Your task to perform on an android device: Check the news Image 0: 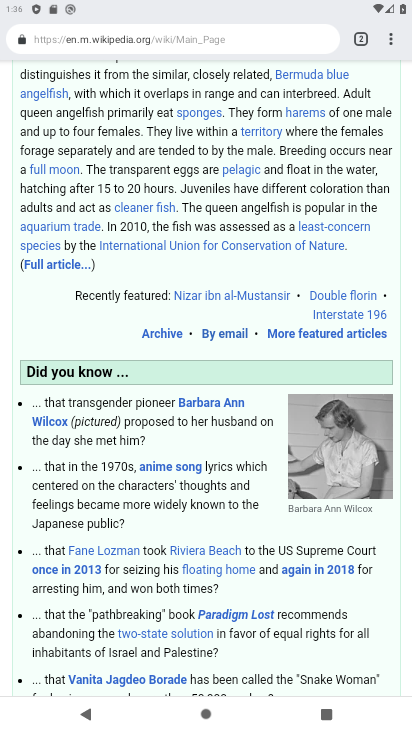
Step 0: press home button
Your task to perform on an android device: Check the news Image 1: 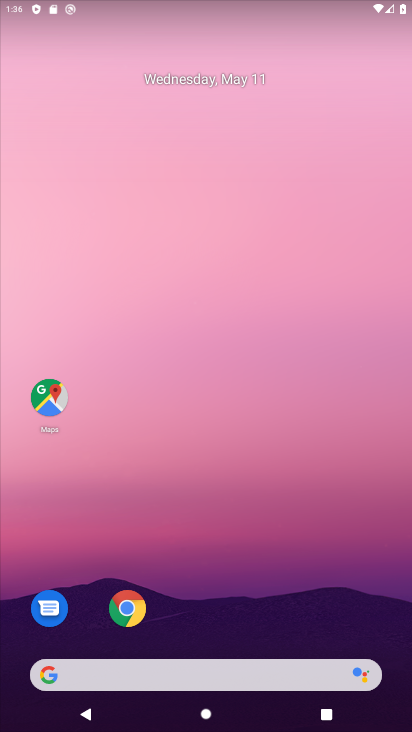
Step 1: click (165, 679)
Your task to perform on an android device: Check the news Image 2: 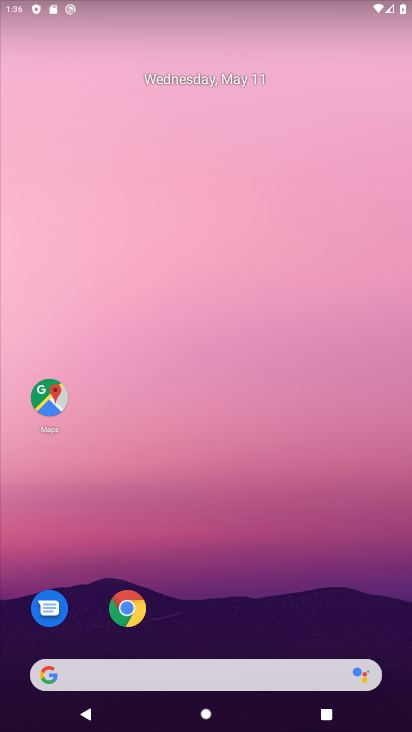
Step 2: click (166, 674)
Your task to perform on an android device: Check the news Image 3: 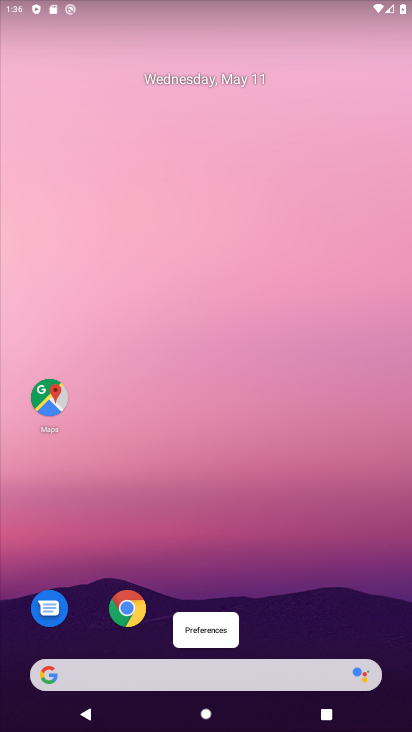
Step 3: click (163, 684)
Your task to perform on an android device: Check the news Image 4: 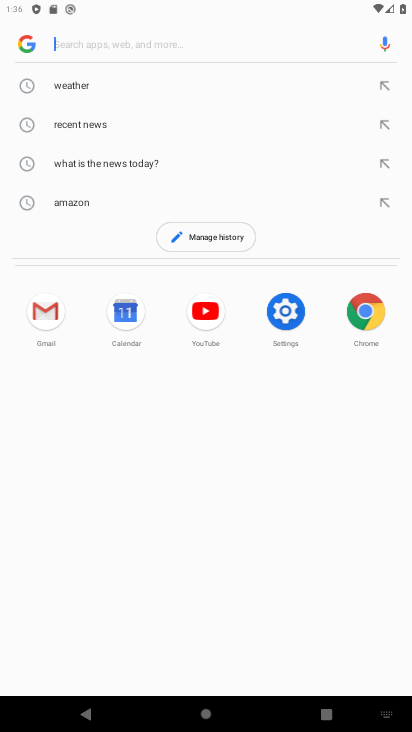
Step 4: click (155, 668)
Your task to perform on an android device: Check the news Image 5: 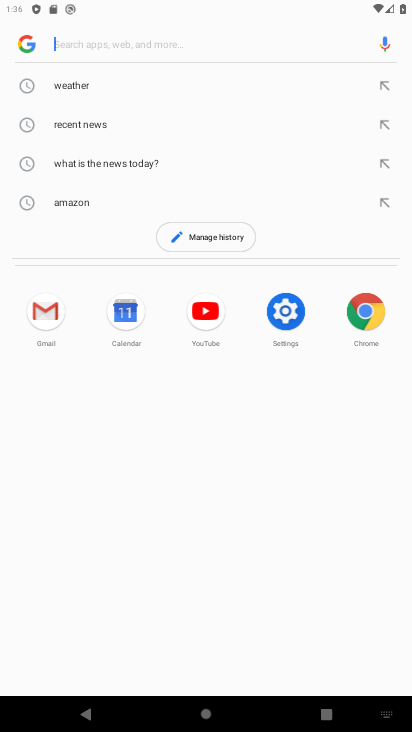
Step 5: click (129, 41)
Your task to perform on an android device: Check the news Image 6: 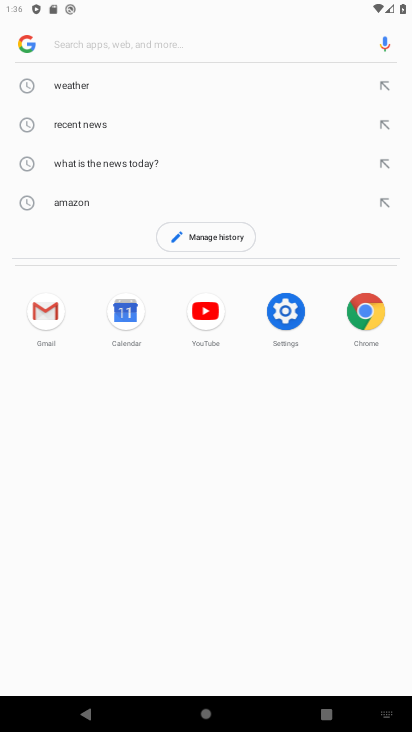
Step 6: task complete